Your task to perform on an android device: Open CNN.com Image 0: 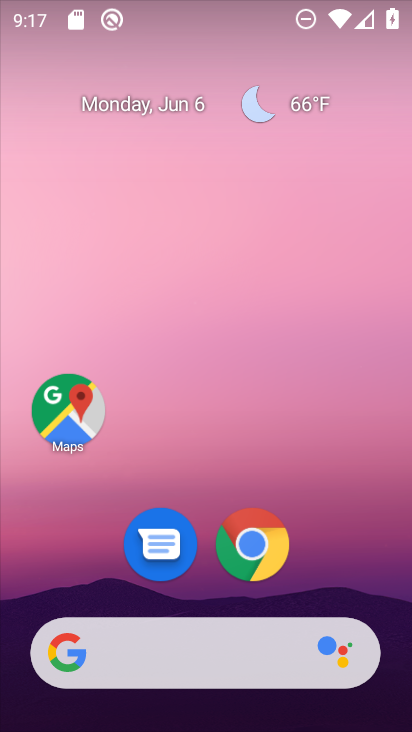
Step 0: drag from (256, 542) to (251, 224)
Your task to perform on an android device: Open CNN.com Image 1: 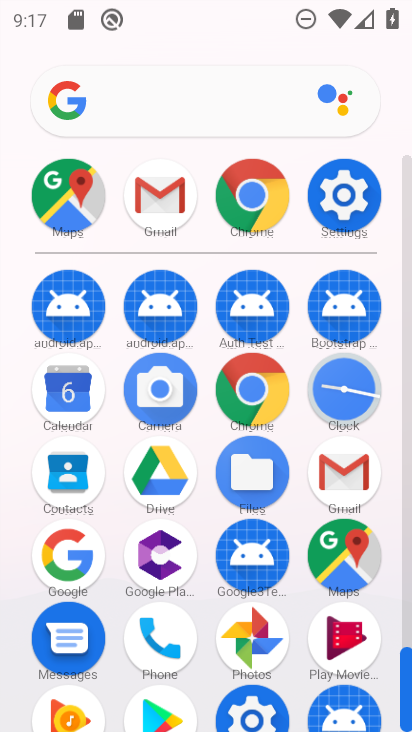
Step 1: click (246, 194)
Your task to perform on an android device: Open CNN.com Image 2: 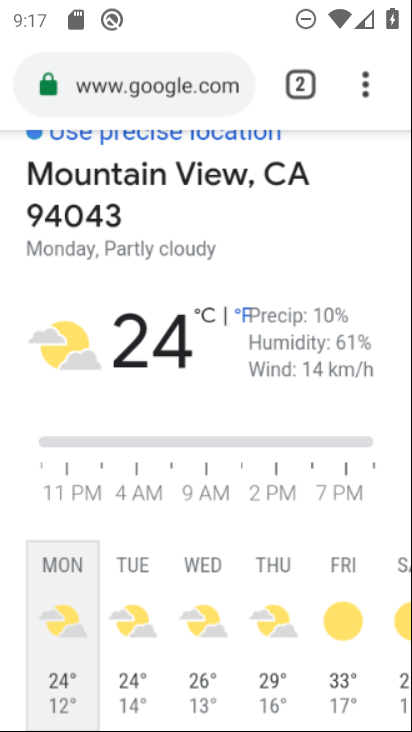
Step 2: click (159, 93)
Your task to perform on an android device: Open CNN.com Image 3: 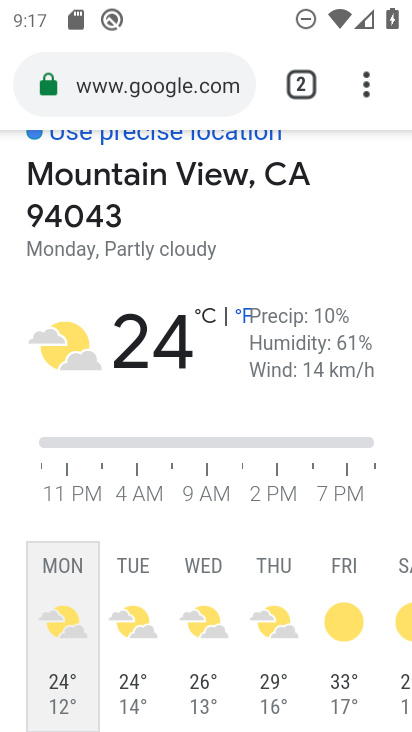
Step 3: type "CNN.com"
Your task to perform on an android device: Open CNN.com Image 4: 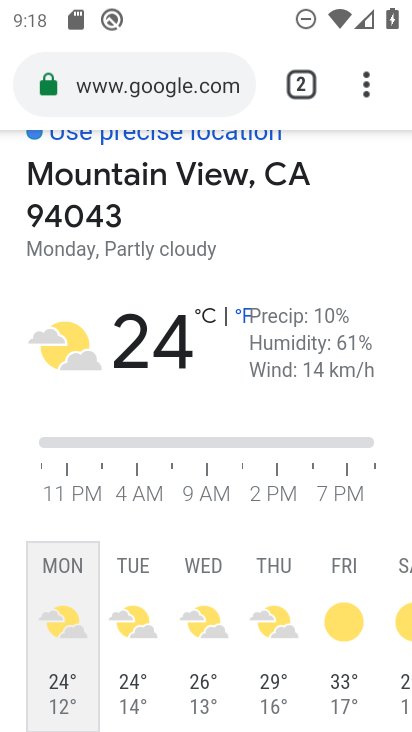
Step 4: click (159, 78)
Your task to perform on an android device: Open CNN.com Image 5: 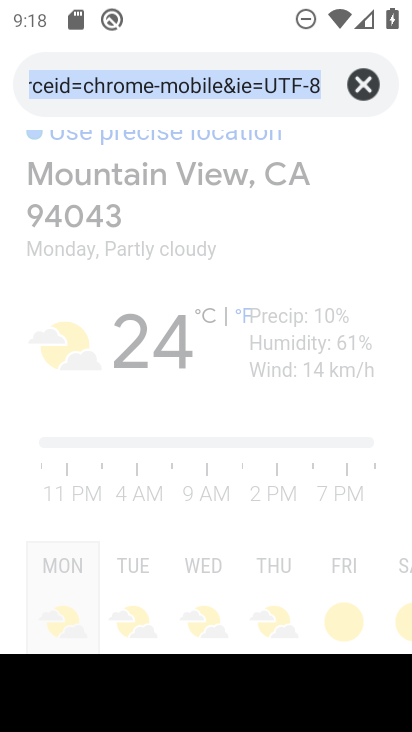
Step 5: type "CNN.com"
Your task to perform on an android device: Open CNN.com Image 6: 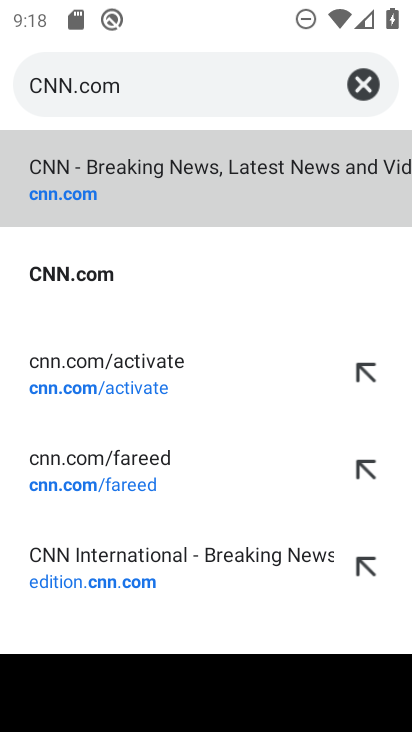
Step 6: click (83, 283)
Your task to perform on an android device: Open CNN.com Image 7: 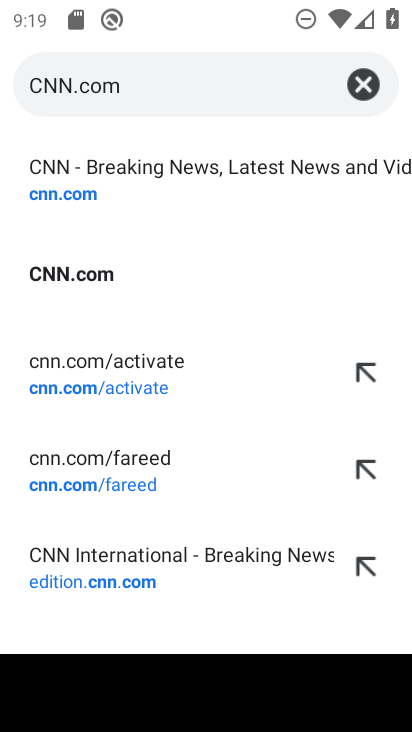
Step 7: click (117, 281)
Your task to perform on an android device: Open CNN.com Image 8: 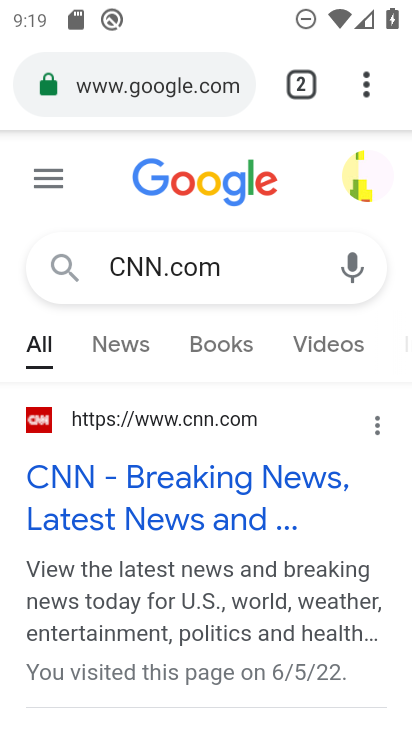
Step 8: task complete